Your task to perform on an android device: check battery use Image 0: 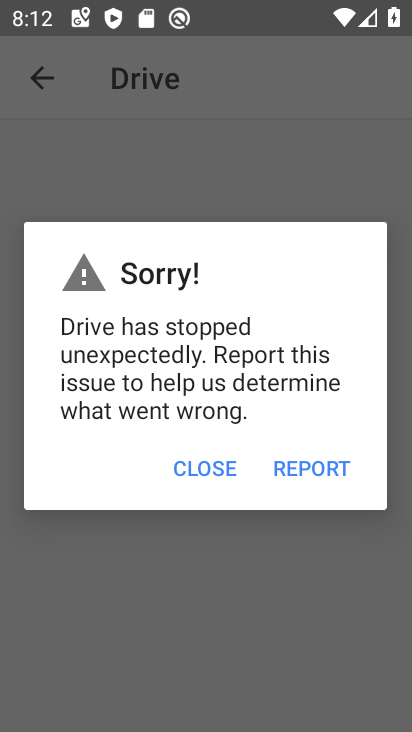
Step 0: click (229, 483)
Your task to perform on an android device: check battery use Image 1: 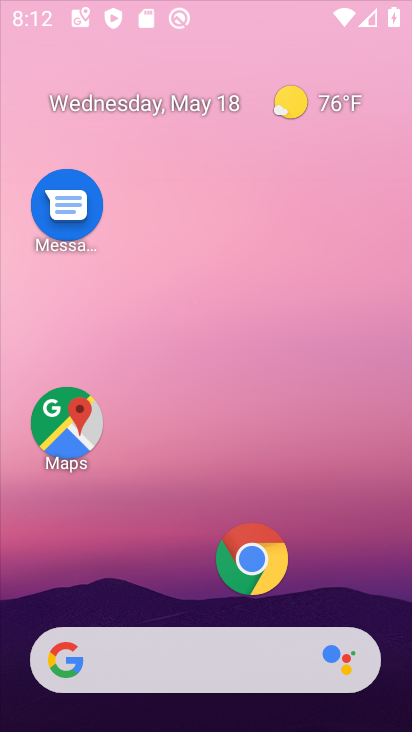
Step 1: press home button
Your task to perform on an android device: check battery use Image 2: 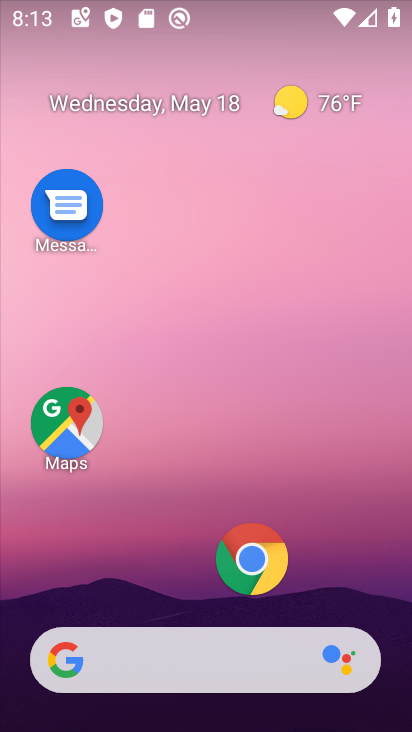
Step 2: drag from (201, 634) to (221, 13)
Your task to perform on an android device: check battery use Image 3: 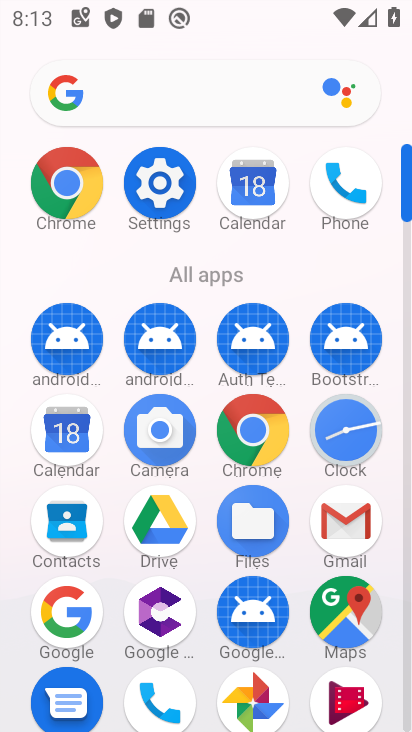
Step 3: click (165, 173)
Your task to perform on an android device: check battery use Image 4: 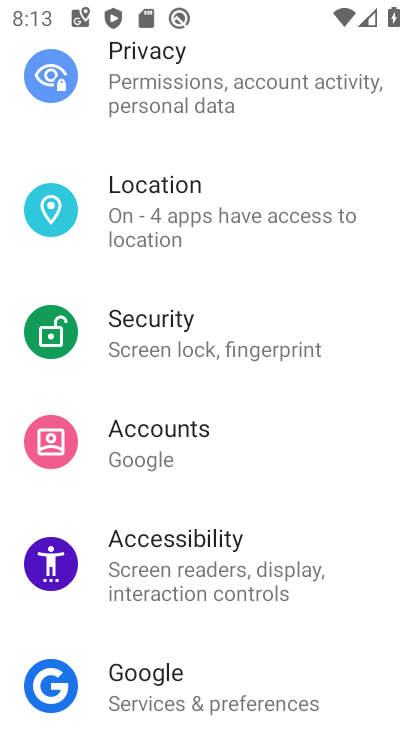
Step 4: click (198, 187)
Your task to perform on an android device: check battery use Image 5: 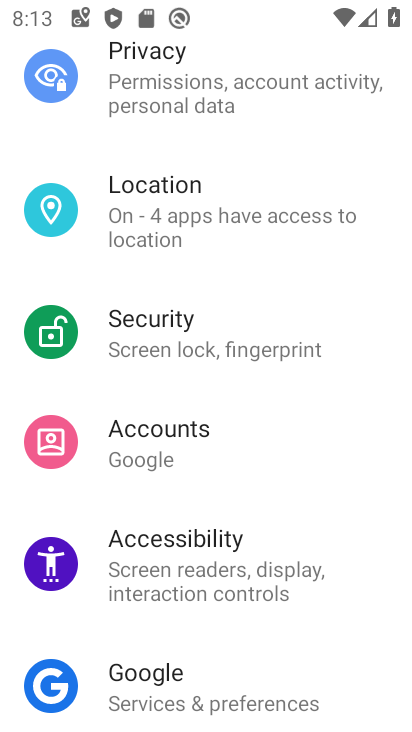
Step 5: click (188, 174)
Your task to perform on an android device: check battery use Image 6: 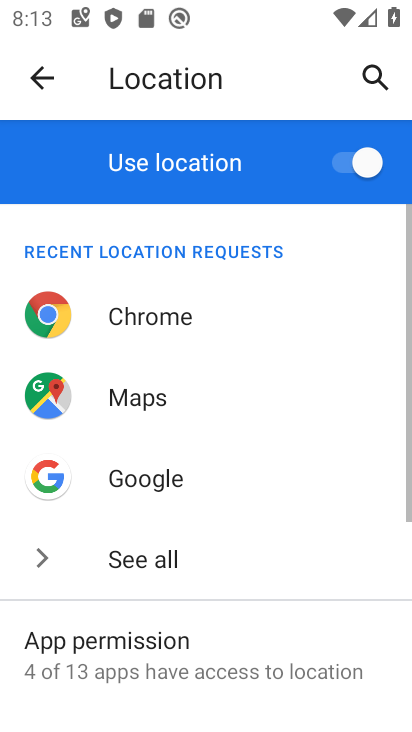
Step 6: click (29, 66)
Your task to perform on an android device: check battery use Image 7: 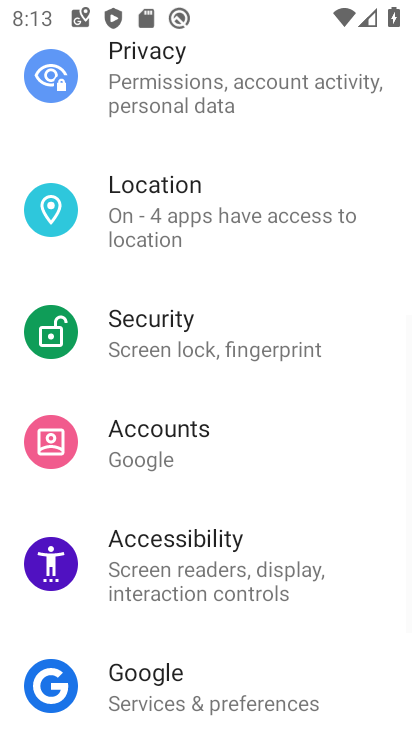
Step 7: drag from (169, 471) to (130, 38)
Your task to perform on an android device: check battery use Image 8: 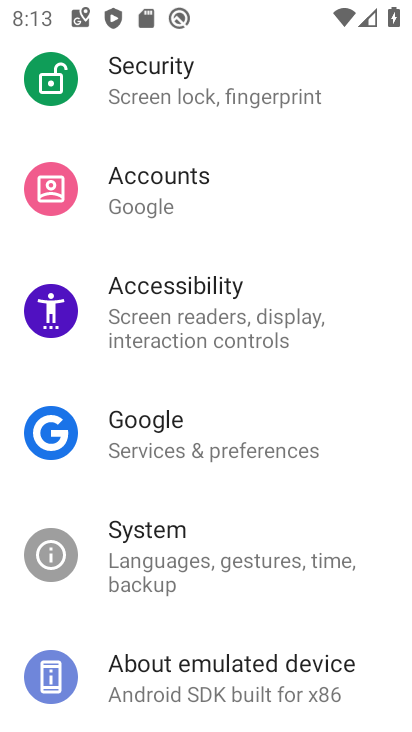
Step 8: drag from (204, 203) to (226, 640)
Your task to perform on an android device: check battery use Image 9: 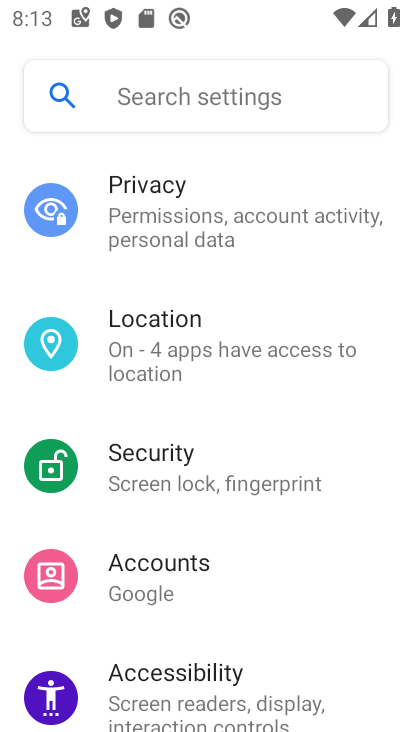
Step 9: drag from (252, 244) to (253, 712)
Your task to perform on an android device: check battery use Image 10: 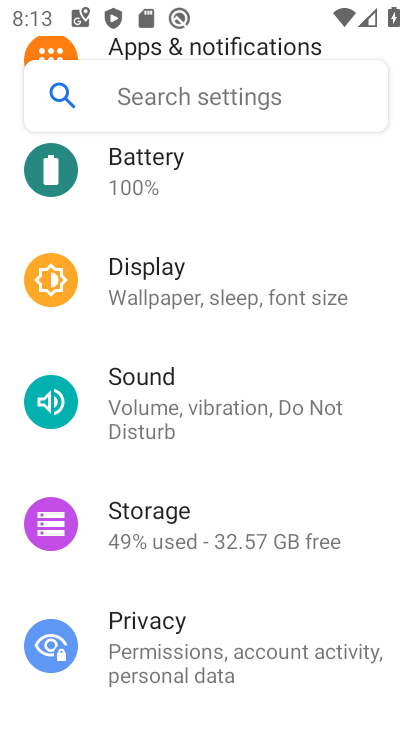
Step 10: click (194, 199)
Your task to perform on an android device: check battery use Image 11: 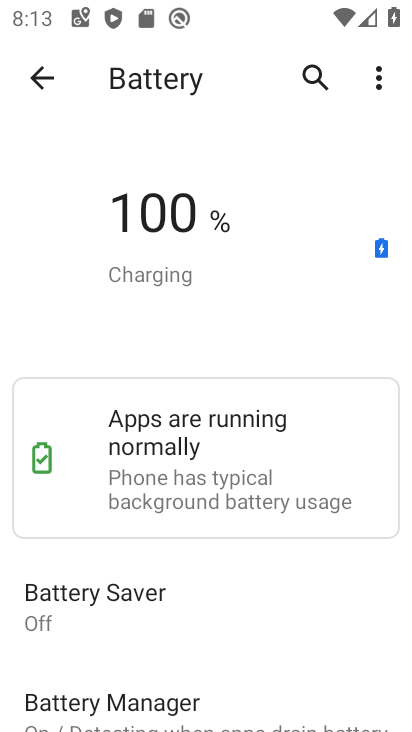
Step 11: task complete